Your task to perform on an android device: Open Google Chrome and open the bookmarks view Image 0: 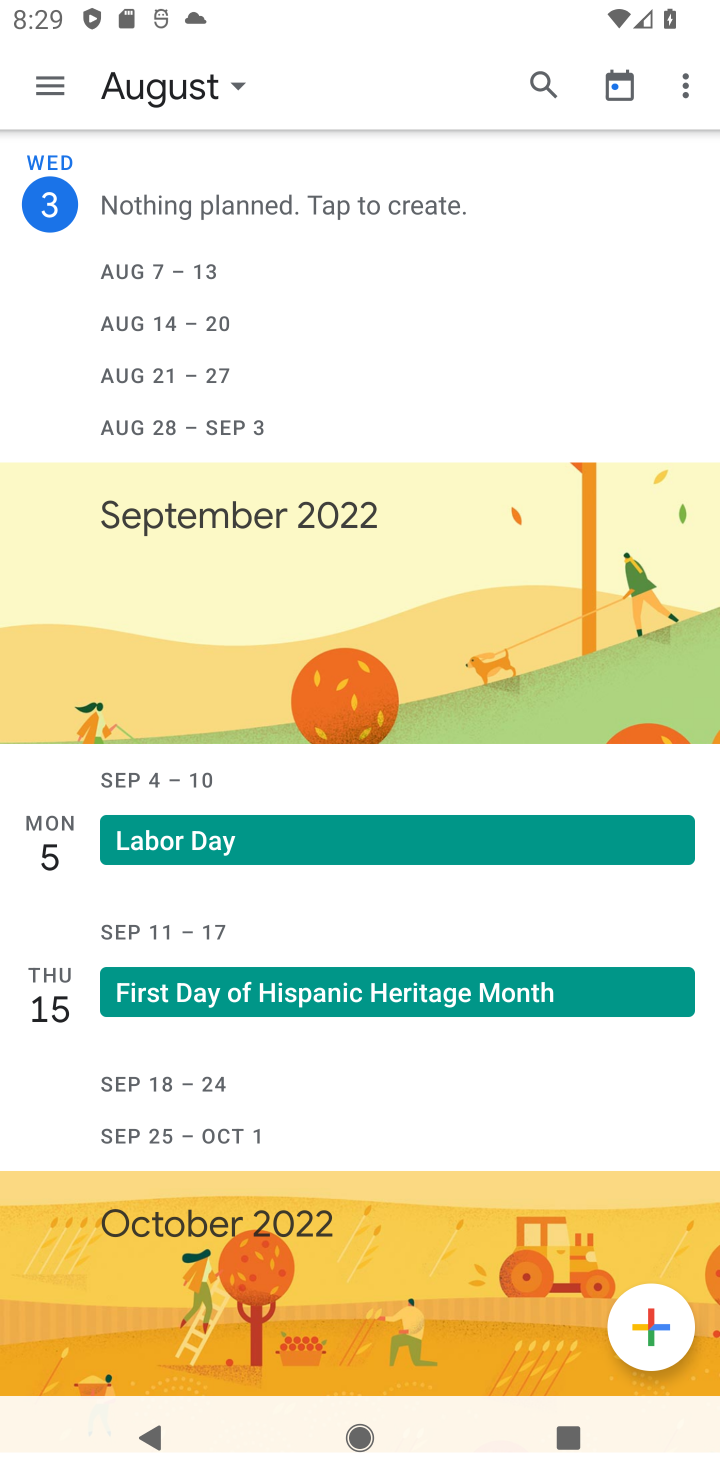
Step 0: press home button
Your task to perform on an android device: Open Google Chrome and open the bookmarks view Image 1: 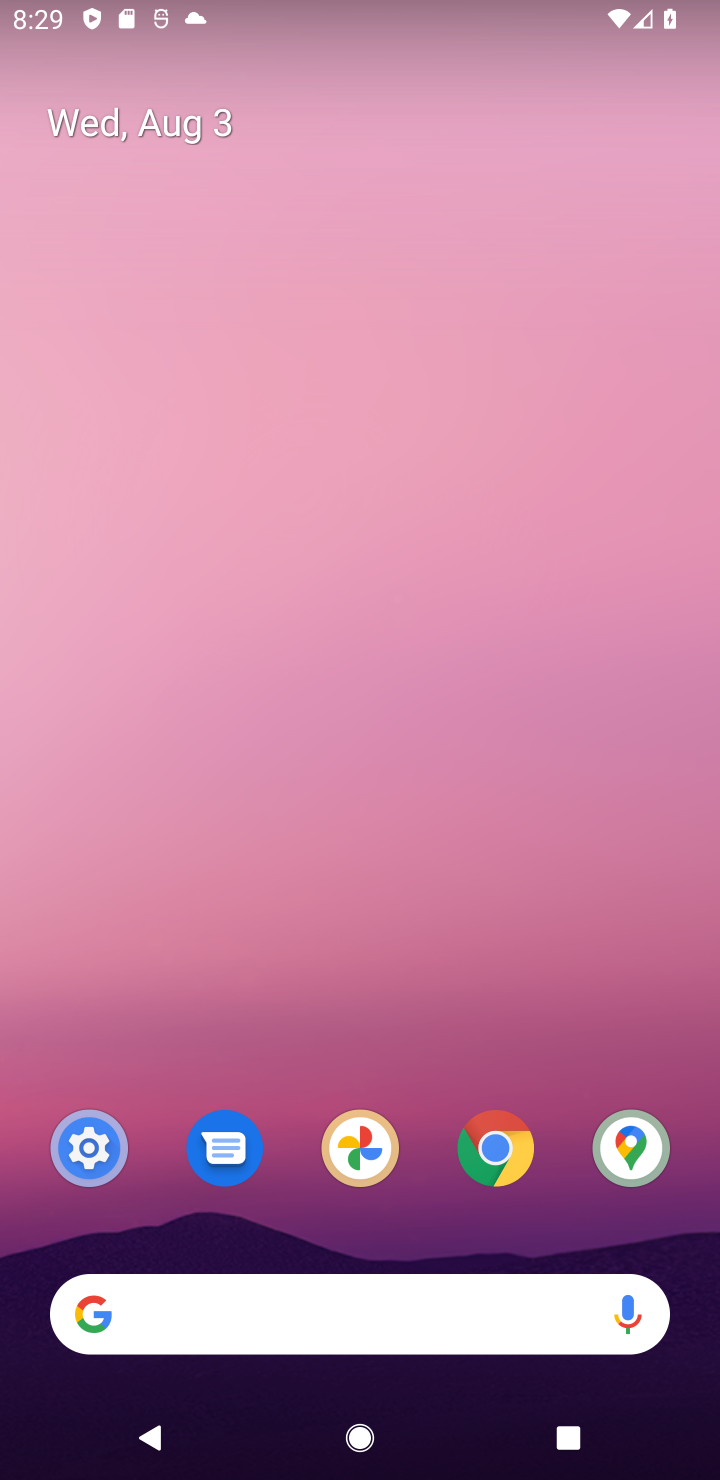
Step 1: drag from (336, 936) to (431, 147)
Your task to perform on an android device: Open Google Chrome and open the bookmarks view Image 2: 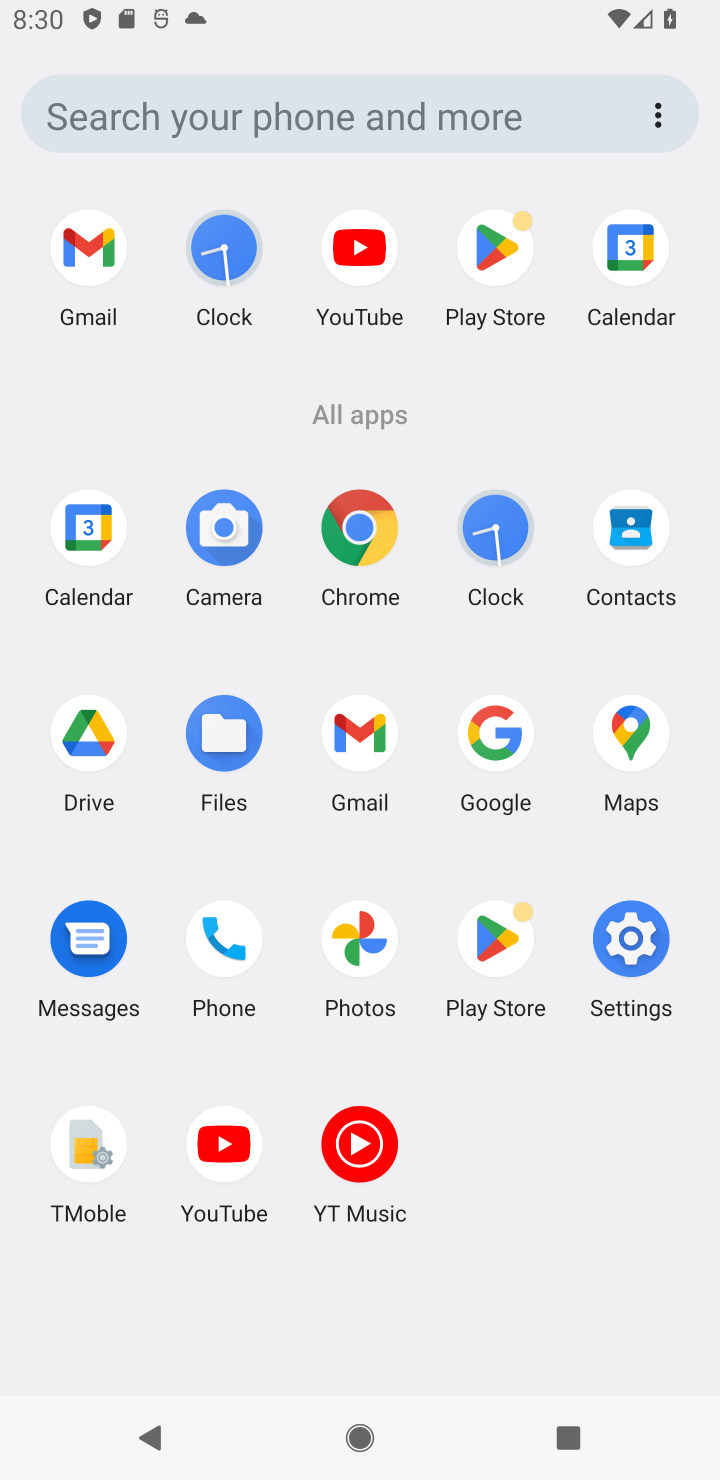
Step 2: click (360, 532)
Your task to perform on an android device: Open Google Chrome and open the bookmarks view Image 3: 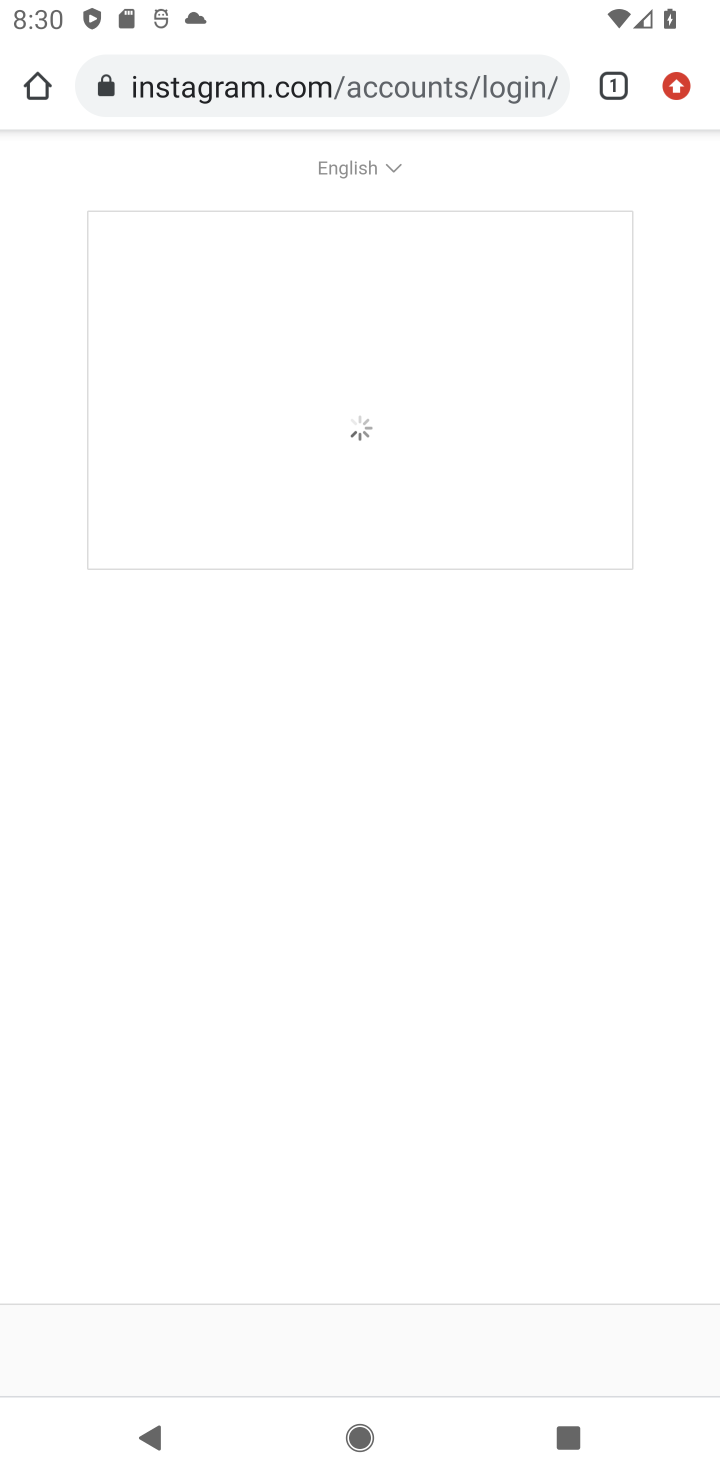
Step 3: click (657, 83)
Your task to perform on an android device: Open Google Chrome and open the bookmarks view Image 4: 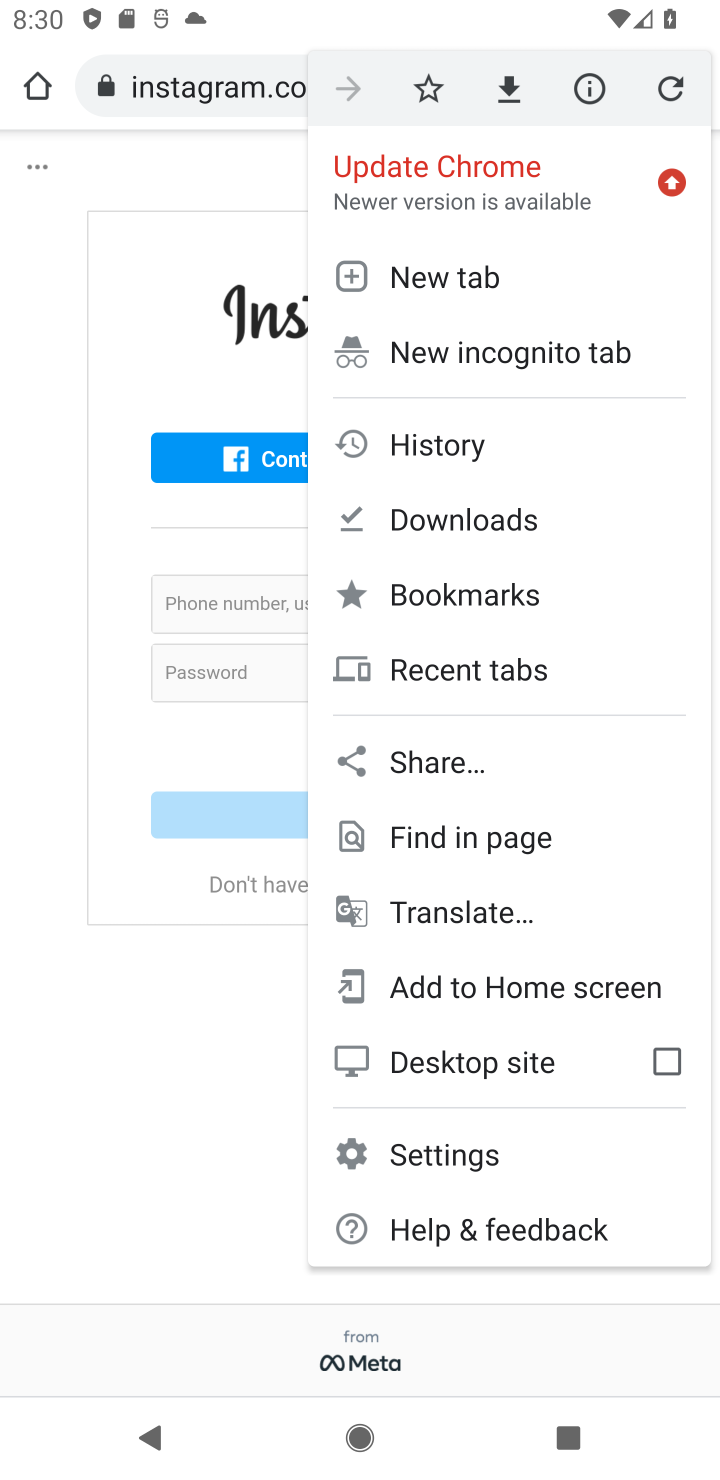
Step 4: click (418, 588)
Your task to perform on an android device: Open Google Chrome and open the bookmarks view Image 5: 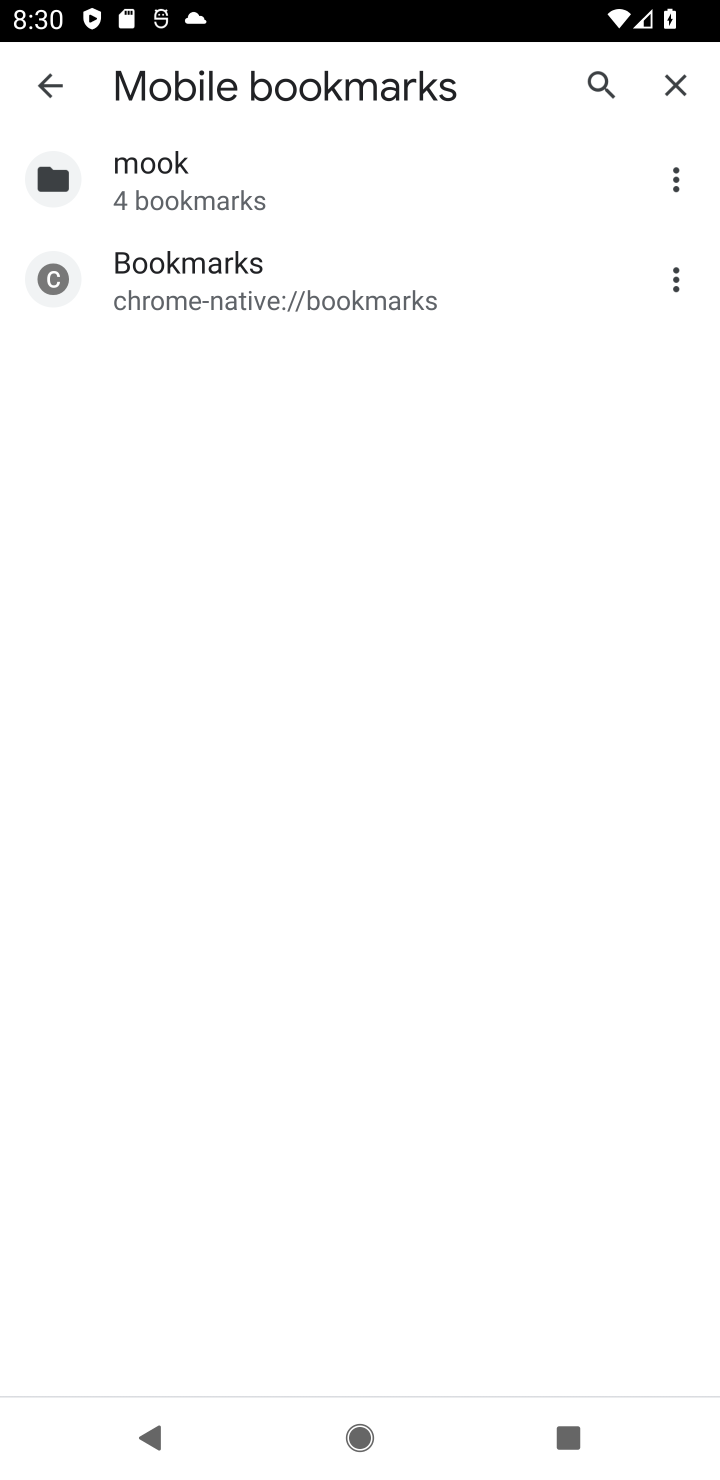
Step 5: task complete